Your task to perform on an android device: When is my next meeting? Image 0: 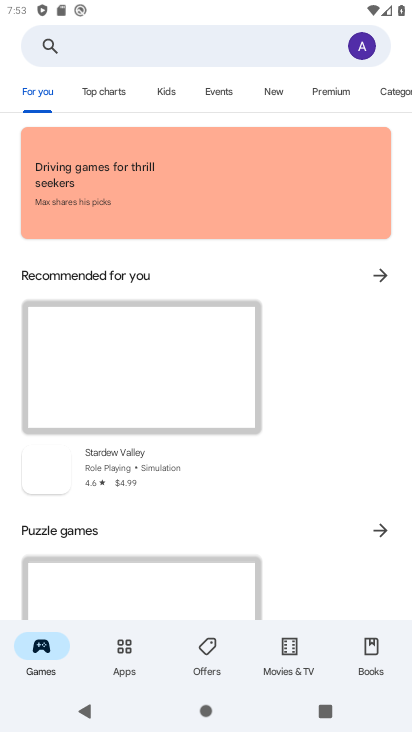
Step 0: press home button
Your task to perform on an android device: When is my next meeting? Image 1: 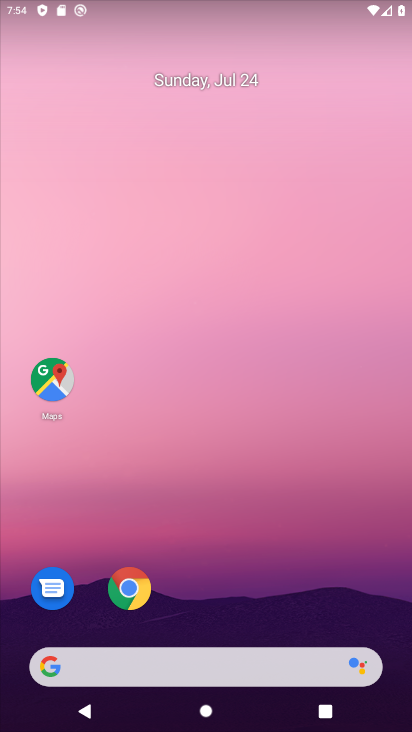
Step 1: drag from (287, 156) to (302, 112)
Your task to perform on an android device: When is my next meeting? Image 2: 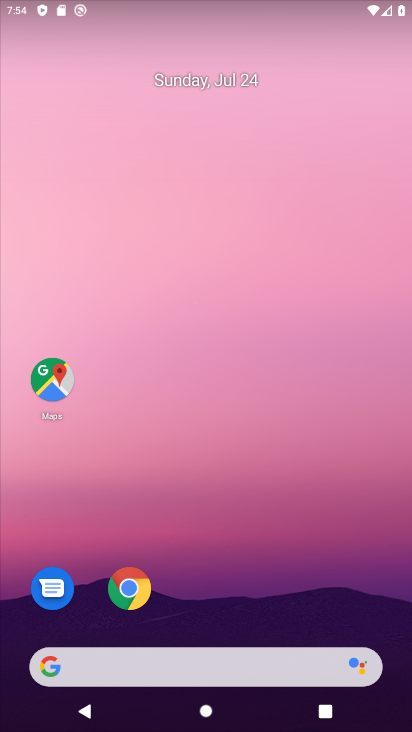
Step 2: drag from (238, 602) to (283, 205)
Your task to perform on an android device: When is my next meeting? Image 3: 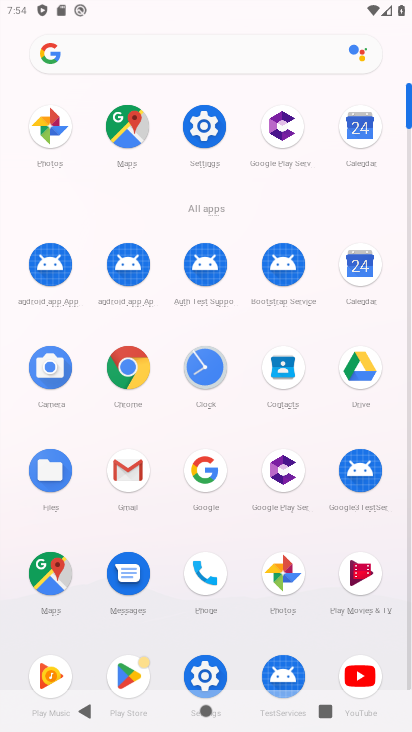
Step 3: click (349, 259)
Your task to perform on an android device: When is my next meeting? Image 4: 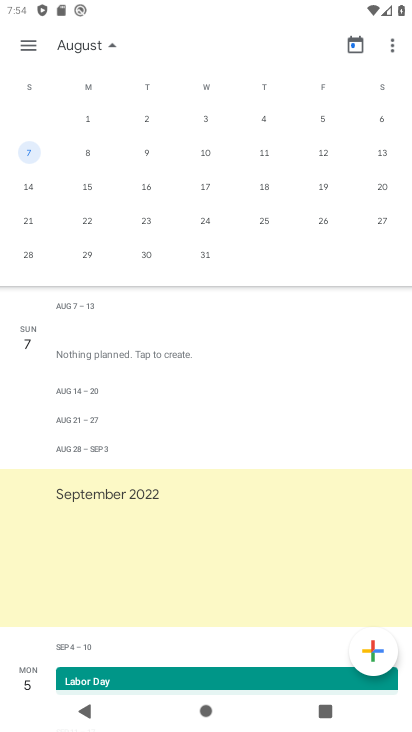
Step 4: drag from (24, 141) to (330, 149)
Your task to perform on an android device: When is my next meeting? Image 5: 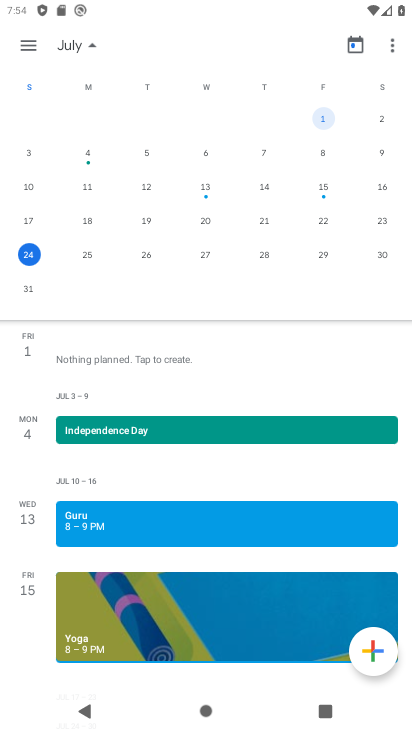
Step 5: click (29, 256)
Your task to perform on an android device: When is my next meeting? Image 6: 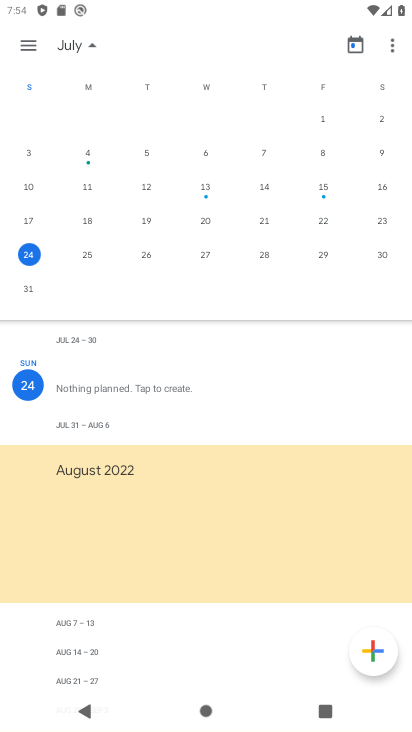
Step 6: task complete